Your task to perform on an android device: toggle show notifications on the lock screen Image 0: 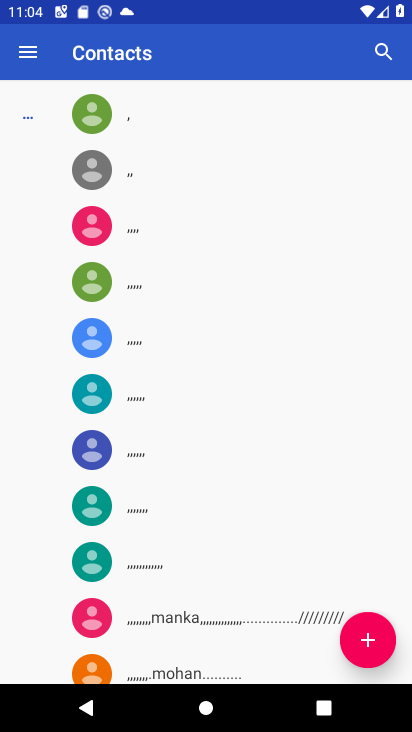
Step 0: press back button
Your task to perform on an android device: toggle show notifications on the lock screen Image 1: 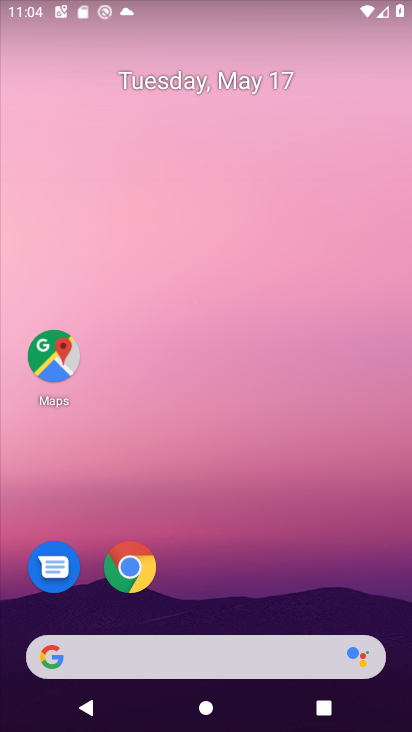
Step 1: drag from (231, 614) to (322, 65)
Your task to perform on an android device: toggle show notifications on the lock screen Image 2: 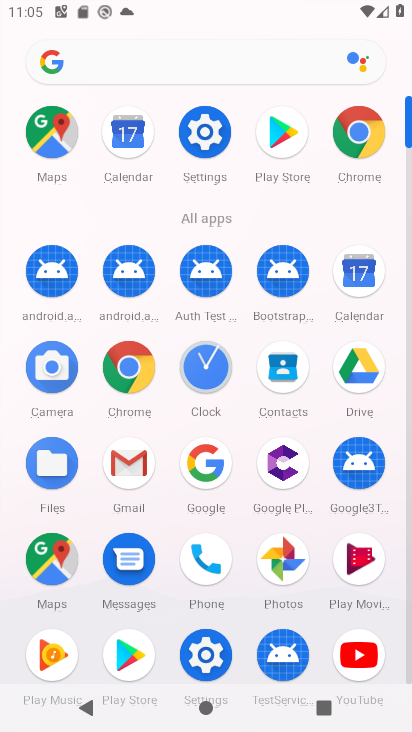
Step 2: click (221, 88)
Your task to perform on an android device: toggle show notifications on the lock screen Image 3: 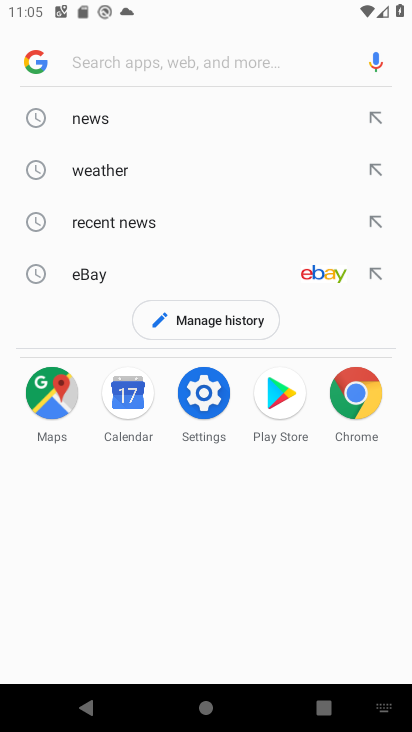
Step 3: press back button
Your task to perform on an android device: toggle show notifications on the lock screen Image 4: 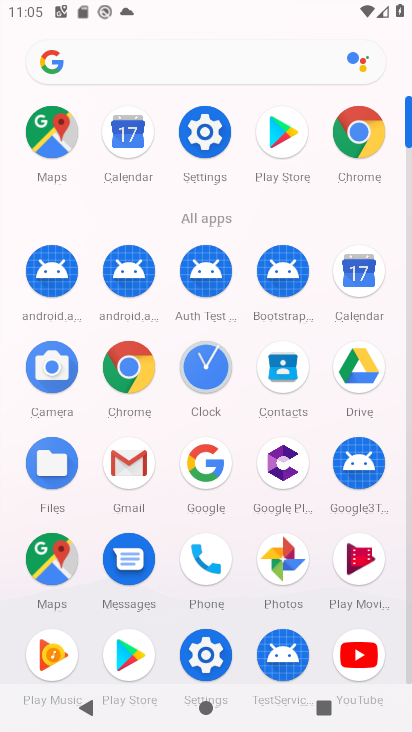
Step 4: click (213, 131)
Your task to perform on an android device: toggle show notifications on the lock screen Image 5: 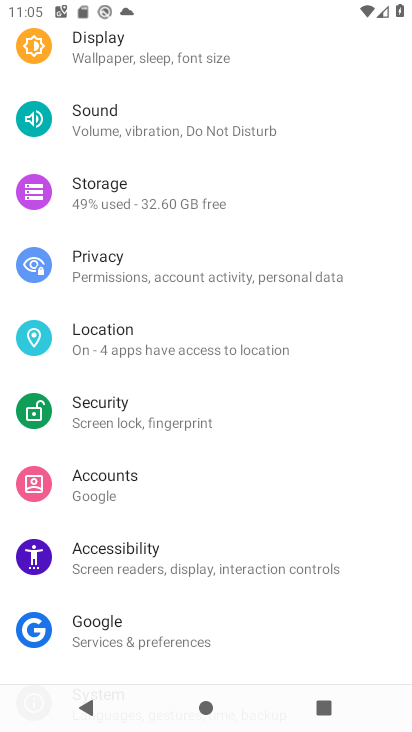
Step 5: drag from (197, 249) to (169, 656)
Your task to perform on an android device: toggle show notifications on the lock screen Image 6: 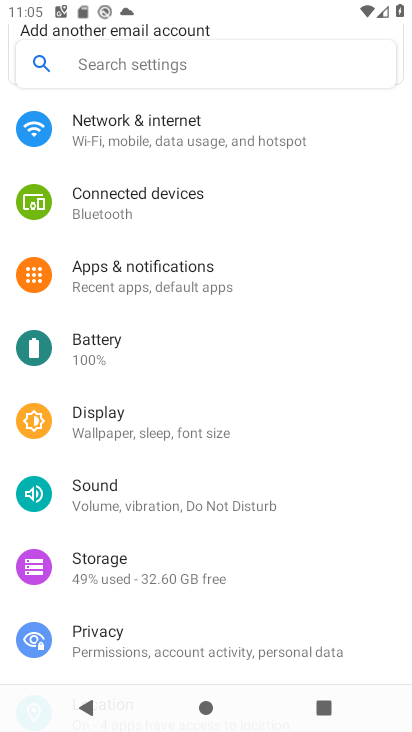
Step 6: click (114, 272)
Your task to perform on an android device: toggle show notifications on the lock screen Image 7: 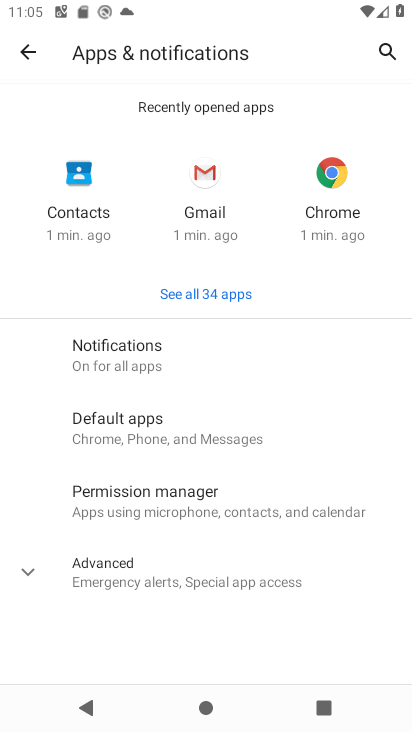
Step 7: click (125, 359)
Your task to perform on an android device: toggle show notifications on the lock screen Image 8: 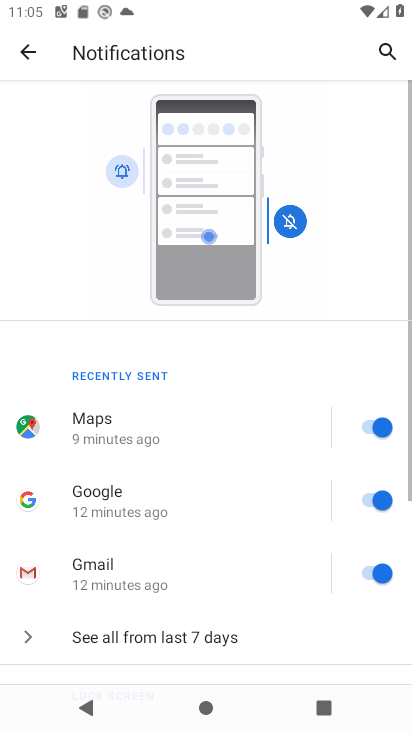
Step 8: drag from (164, 575) to (264, 70)
Your task to perform on an android device: toggle show notifications on the lock screen Image 9: 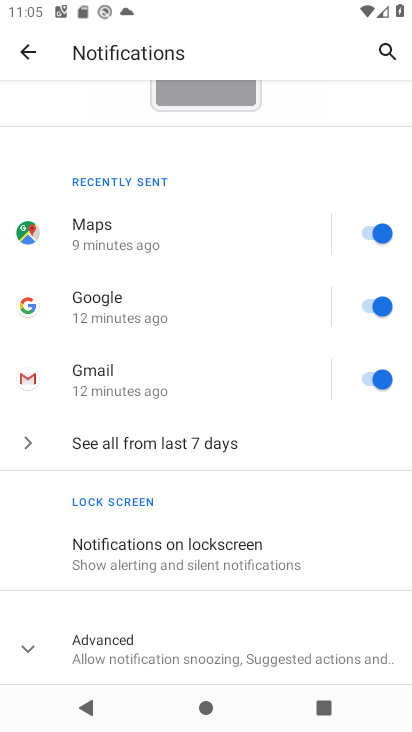
Step 9: click (174, 570)
Your task to perform on an android device: toggle show notifications on the lock screen Image 10: 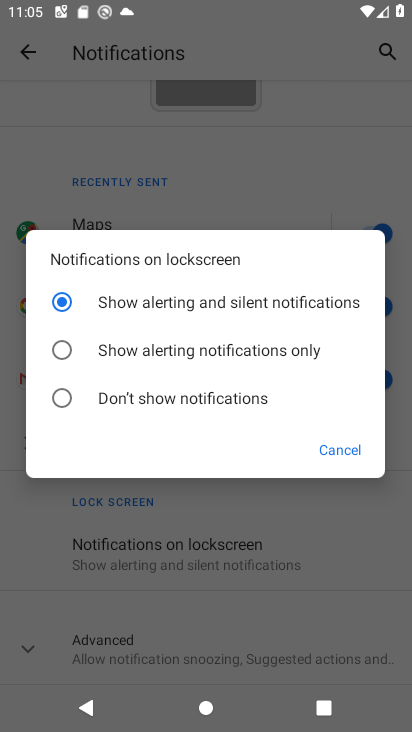
Step 10: click (58, 299)
Your task to perform on an android device: toggle show notifications on the lock screen Image 11: 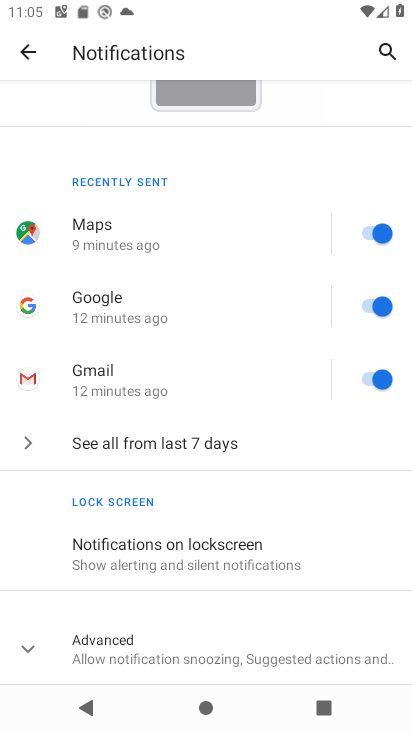
Step 11: task complete